Your task to perform on an android device: move a message to another label in the gmail app Image 0: 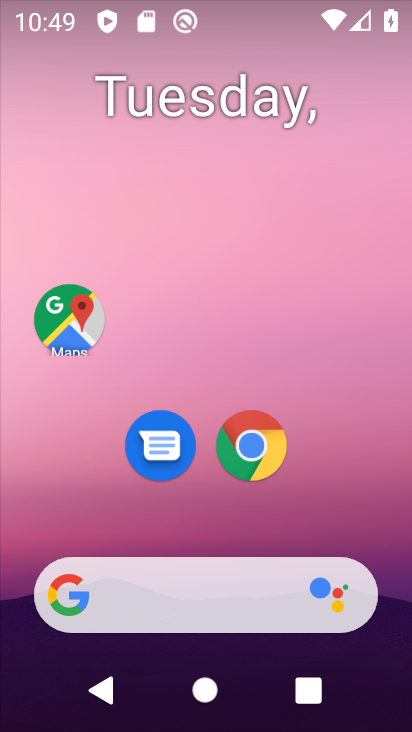
Step 0: drag from (327, 530) to (395, 3)
Your task to perform on an android device: move a message to another label in the gmail app Image 1: 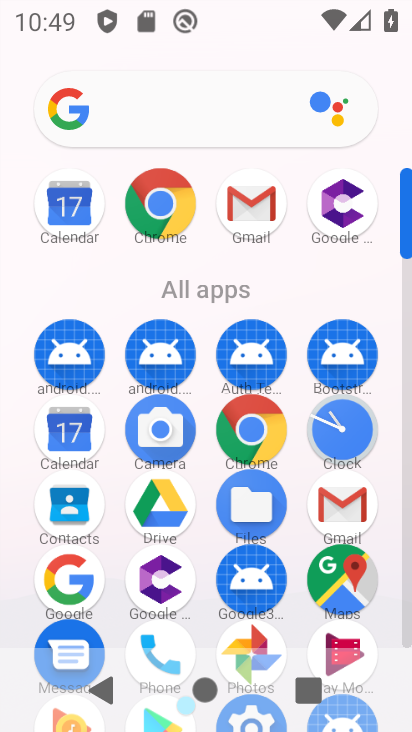
Step 1: click (343, 507)
Your task to perform on an android device: move a message to another label in the gmail app Image 2: 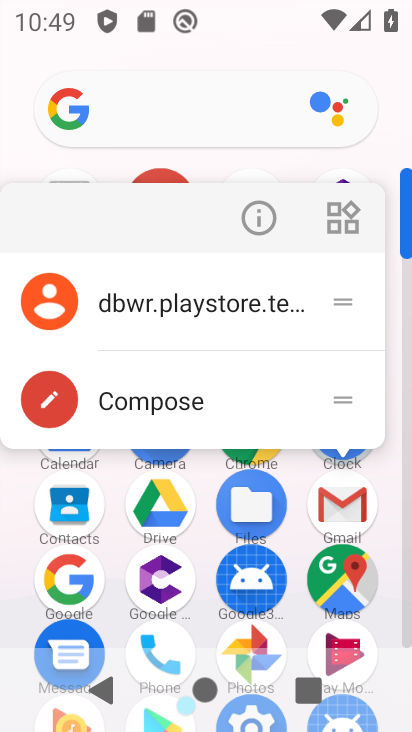
Step 2: click (337, 508)
Your task to perform on an android device: move a message to another label in the gmail app Image 3: 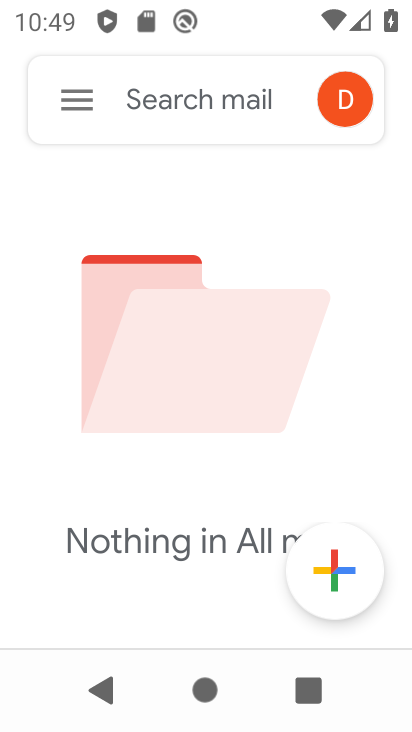
Step 3: click (75, 100)
Your task to perform on an android device: move a message to another label in the gmail app Image 4: 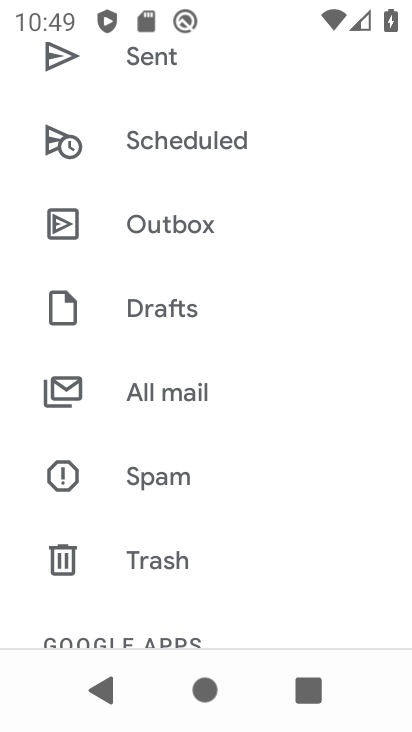
Step 4: click (207, 391)
Your task to perform on an android device: move a message to another label in the gmail app Image 5: 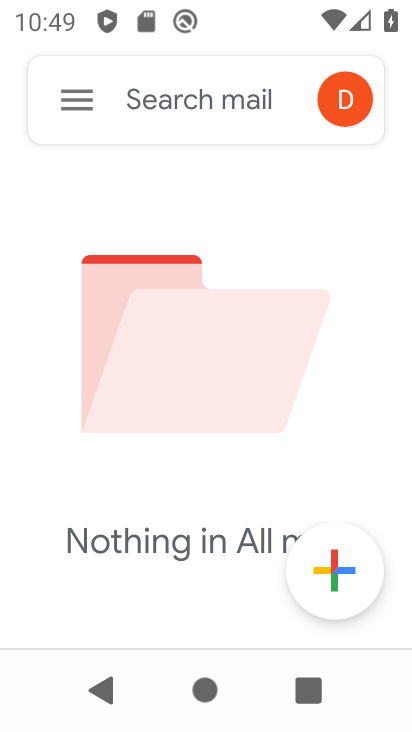
Step 5: task complete